Your task to perform on an android device: turn on improve location accuracy Image 0: 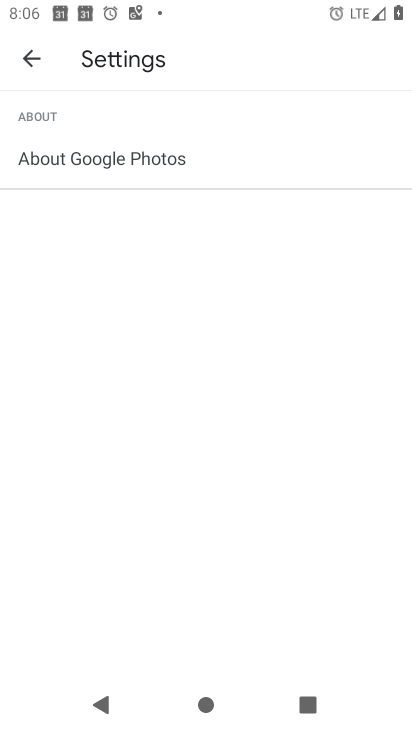
Step 0: press home button
Your task to perform on an android device: turn on improve location accuracy Image 1: 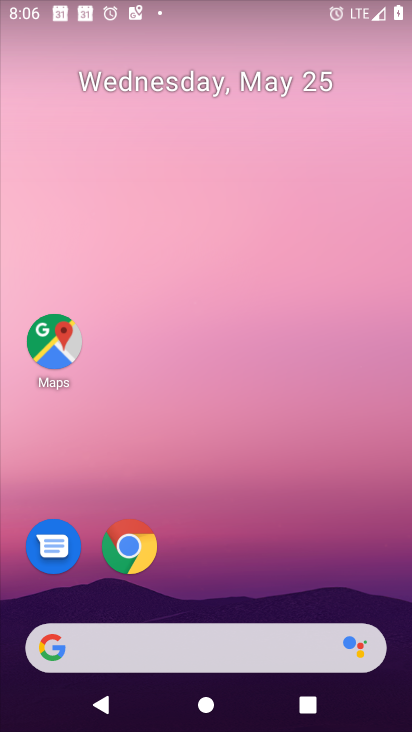
Step 1: drag from (316, 587) to (345, 229)
Your task to perform on an android device: turn on improve location accuracy Image 2: 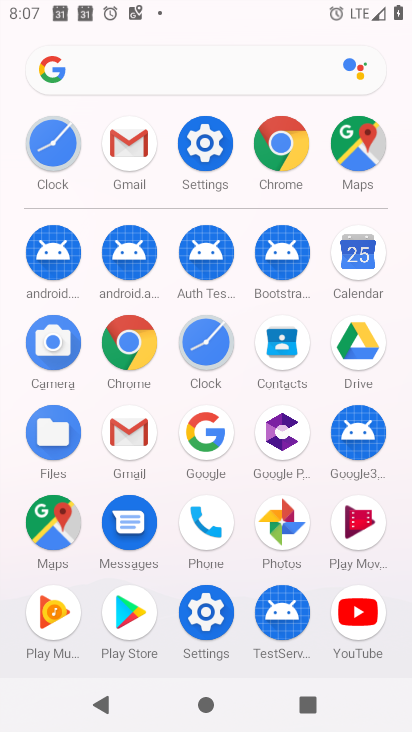
Step 2: click (217, 623)
Your task to perform on an android device: turn on improve location accuracy Image 3: 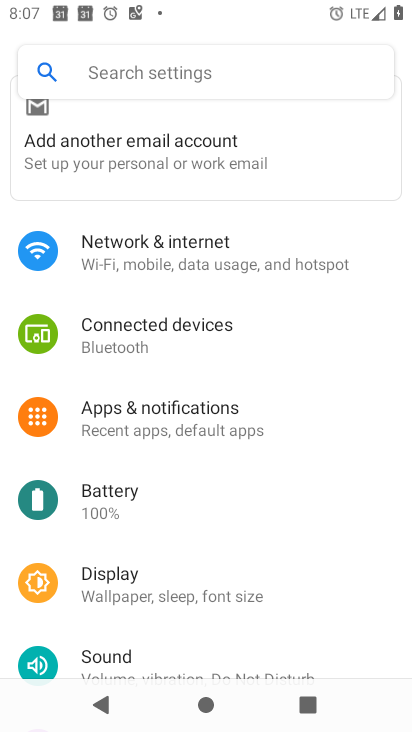
Step 3: drag from (344, 592) to (345, 485)
Your task to perform on an android device: turn on improve location accuracy Image 4: 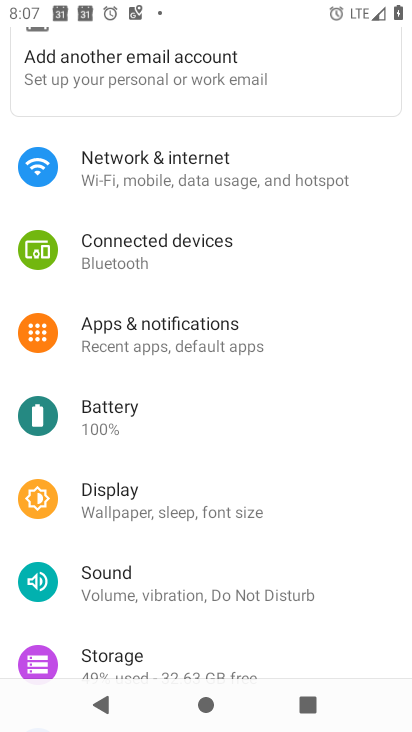
Step 4: drag from (365, 584) to (370, 502)
Your task to perform on an android device: turn on improve location accuracy Image 5: 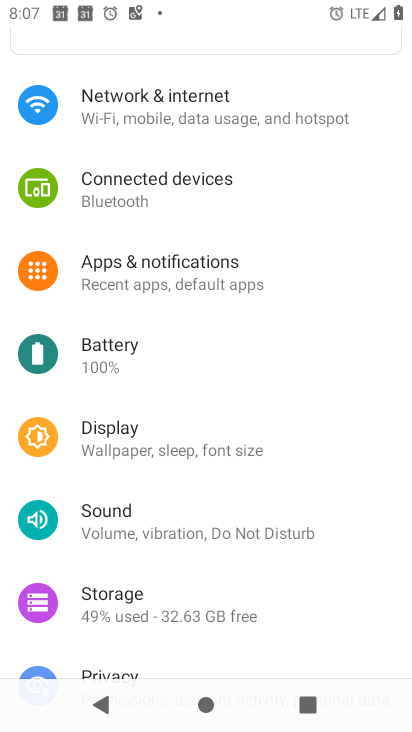
Step 5: drag from (364, 598) to (367, 541)
Your task to perform on an android device: turn on improve location accuracy Image 6: 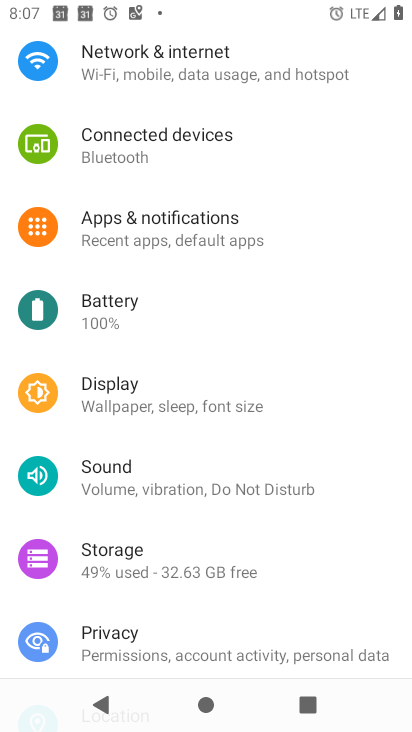
Step 6: drag from (356, 605) to (362, 491)
Your task to perform on an android device: turn on improve location accuracy Image 7: 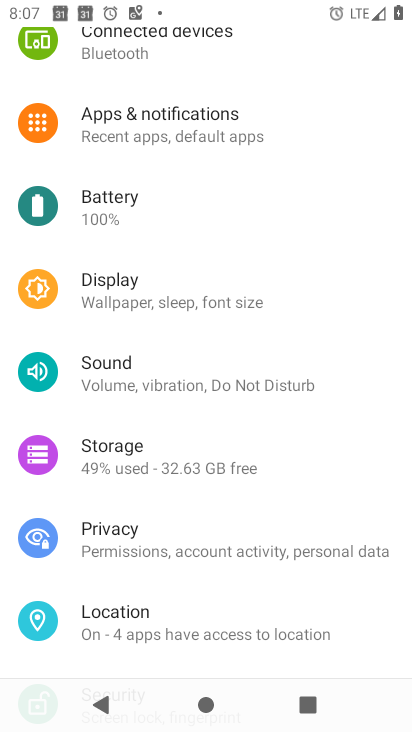
Step 7: drag from (359, 585) to (353, 459)
Your task to perform on an android device: turn on improve location accuracy Image 8: 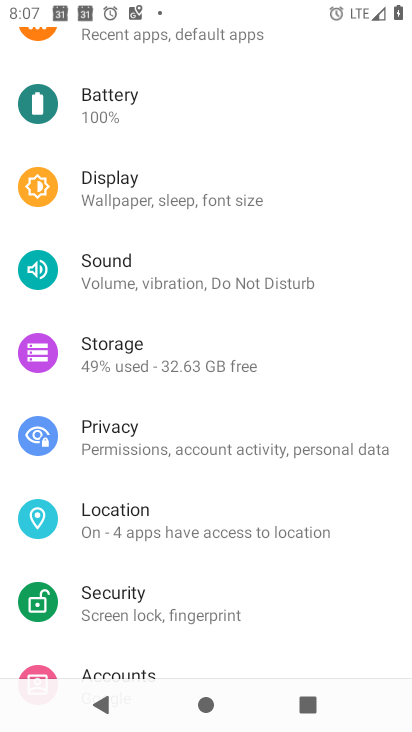
Step 8: drag from (356, 577) to (357, 476)
Your task to perform on an android device: turn on improve location accuracy Image 9: 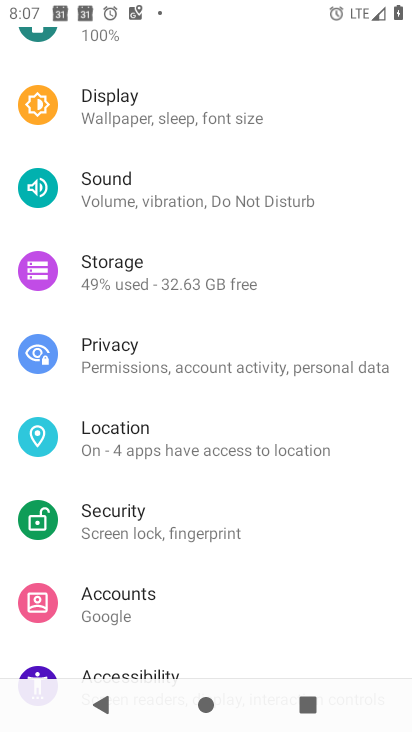
Step 9: drag from (348, 561) to (348, 464)
Your task to perform on an android device: turn on improve location accuracy Image 10: 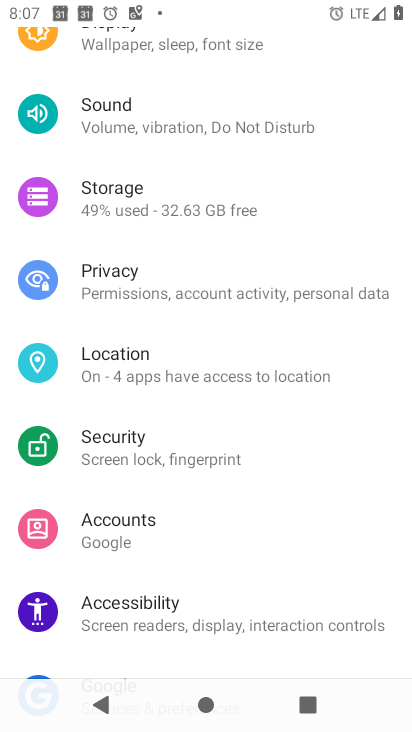
Step 10: drag from (329, 553) to (350, 451)
Your task to perform on an android device: turn on improve location accuracy Image 11: 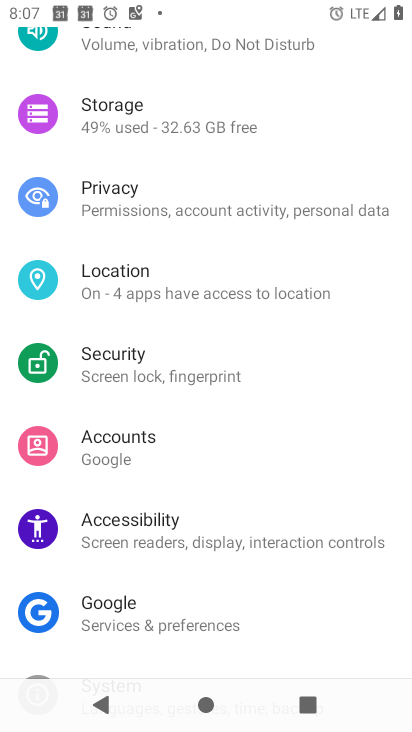
Step 11: click (268, 308)
Your task to perform on an android device: turn on improve location accuracy Image 12: 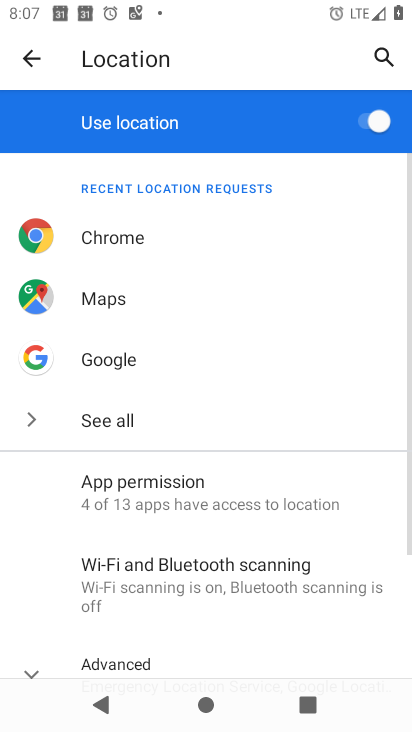
Step 12: drag from (347, 580) to (351, 438)
Your task to perform on an android device: turn on improve location accuracy Image 13: 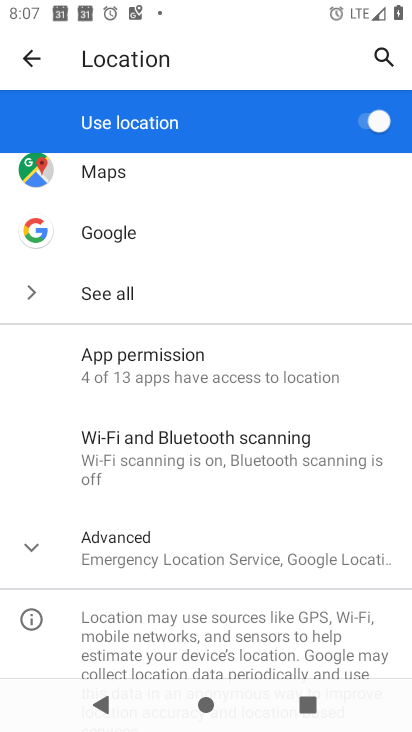
Step 13: click (299, 556)
Your task to perform on an android device: turn on improve location accuracy Image 14: 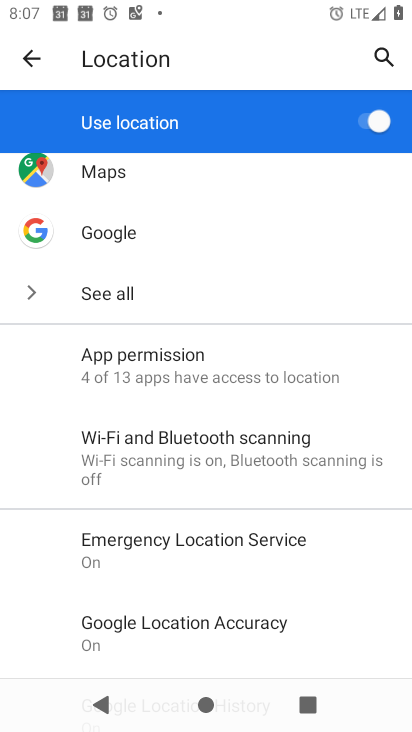
Step 14: drag from (308, 597) to (335, 506)
Your task to perform on an android device: turn on improve location accuracy Image 15: 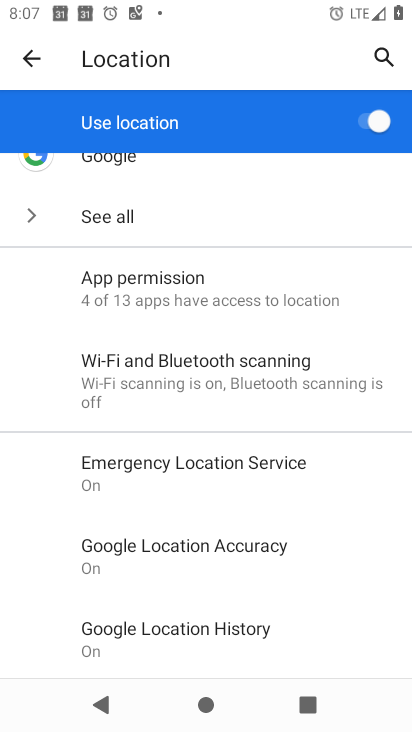
Step 15: drag from (334, 582) to (330, 498)
Your task to perform on an android device: turn on improve location accuracy Image 16: 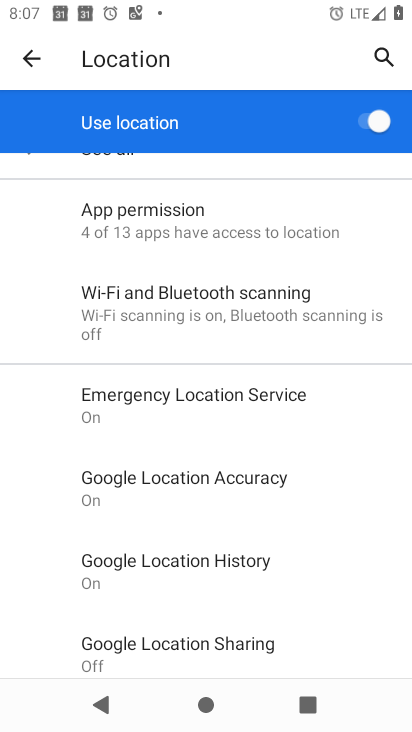
Step 16: click (259, 486)
Your task to perform on an android device: turn on improve location accuracy Image 17: 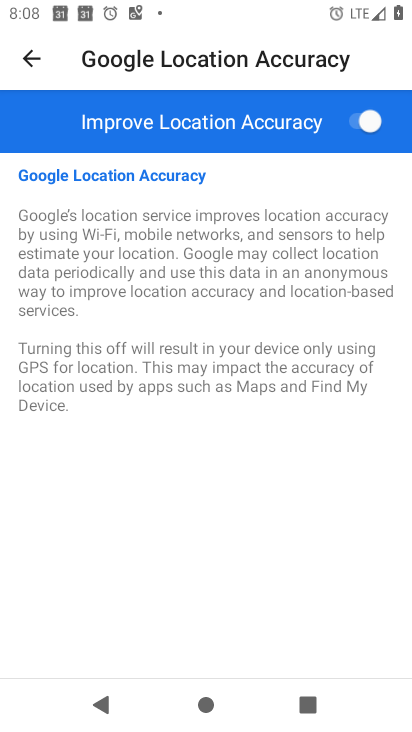
Step 17: task complete